Your task to perform on an android device: Open Youtube and go to "Your channel" Image 0: 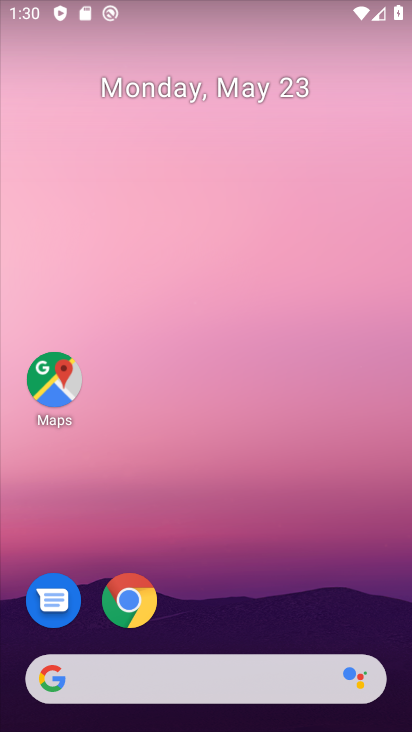
Step 0: drag from (258, 620) to (233, 105)
Your task to perform on an android device: Open Youtube and go to "Your channel" Image 1: 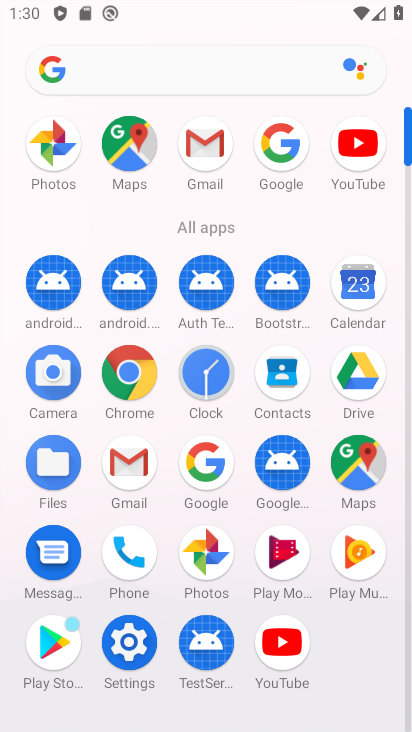
Step 1: click (353, 133)
Your task to perform on an android device: Open Youtube and go to "Your channel" Image 2: 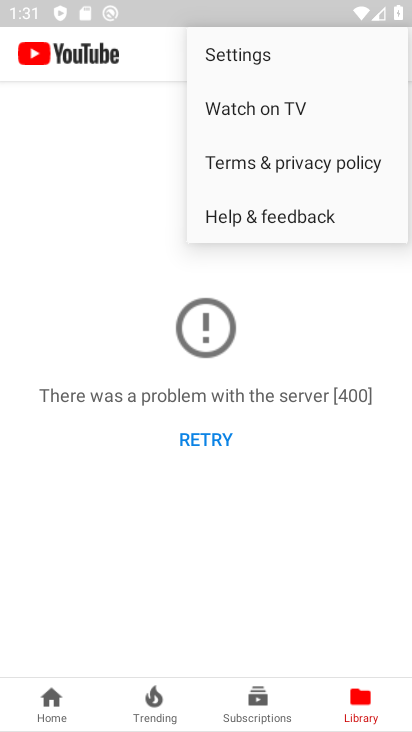
Step 2: task complete